Your task to perform on an android device: Open my contact list Image 0: 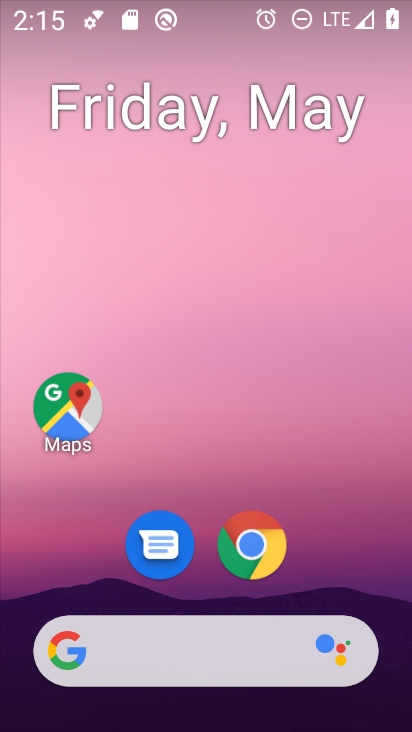
Step 0: drag from (332, 513) to (301, 214)
Your task to perform on an android device: Open my contact list Image 1: 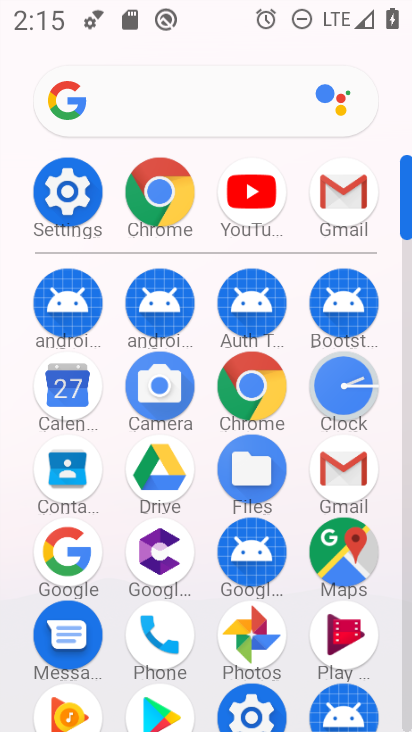
Step 1: click (171, 637)
Your task to perform on an android device: Open my contact list Image 2: 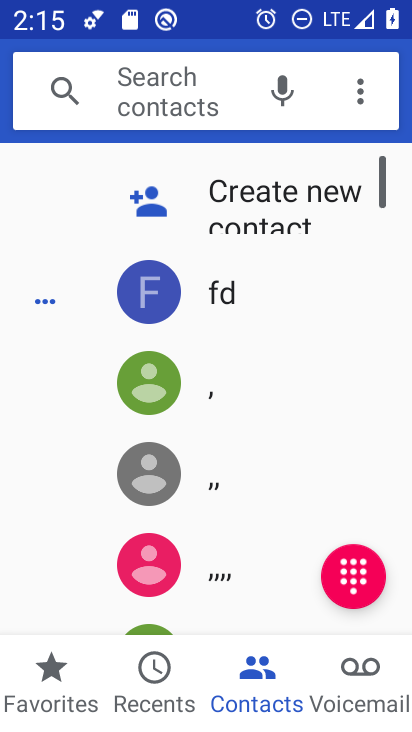
Step 2: task complete